Your task to perform on an android device: turn on airplane mode Image 0: 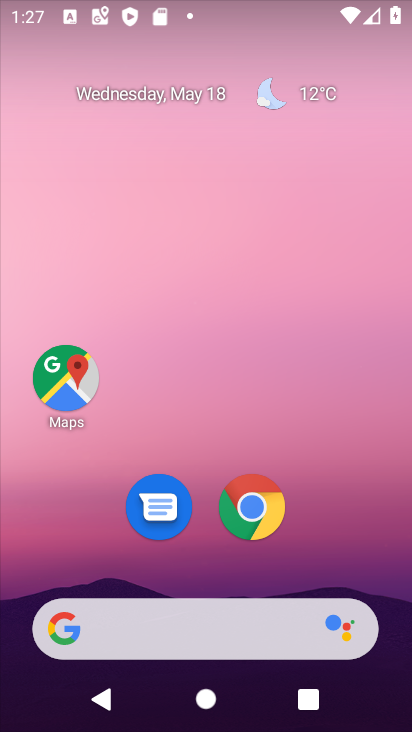
Step 0: drag from (404, 619) to (320, 189)
Your task to perform on an android device: turn on airplane mode Image 1: 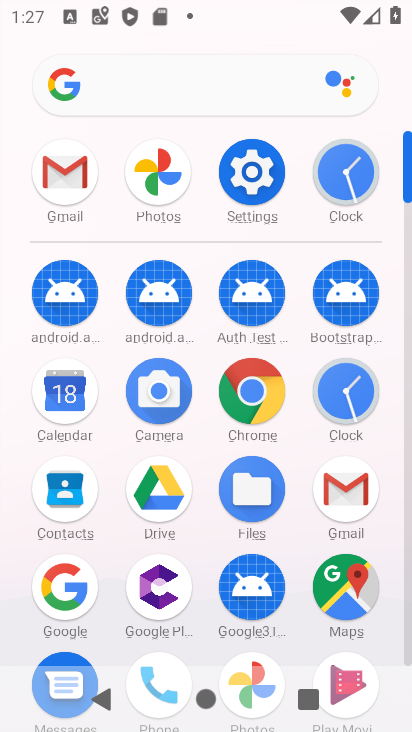
Step 1: click (409, 649)
Your task to perform on an android device: turn on airplane mode Image 2: 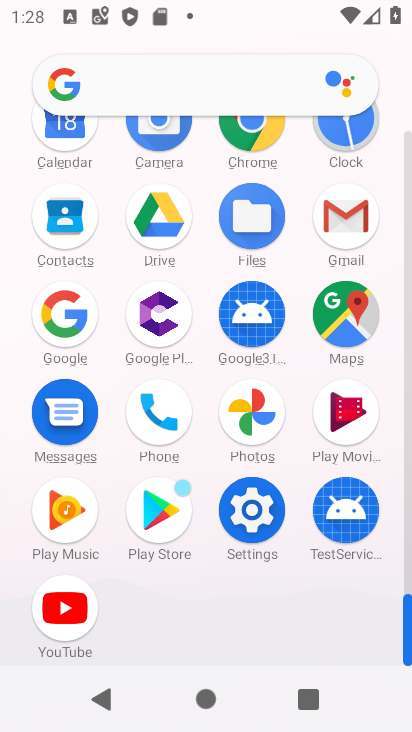
Step 2: click (243, 504)
Your task to perform on an android device: turn on airplane mode Image 3: 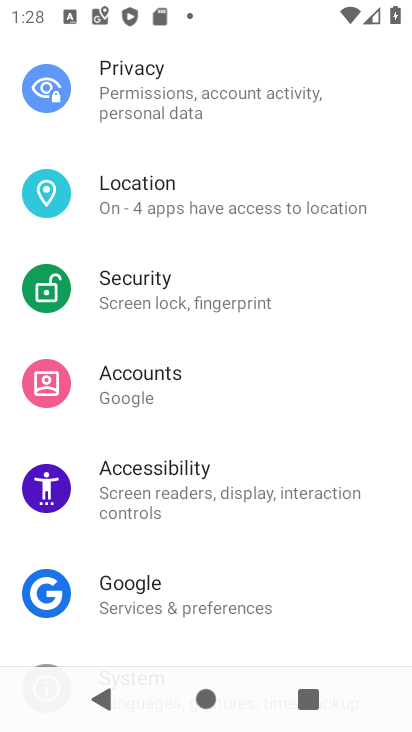
Step 3: drag from (313, 245) to (312, 585)
Your task to perform on an android device: turn on airplane mode Image 4: 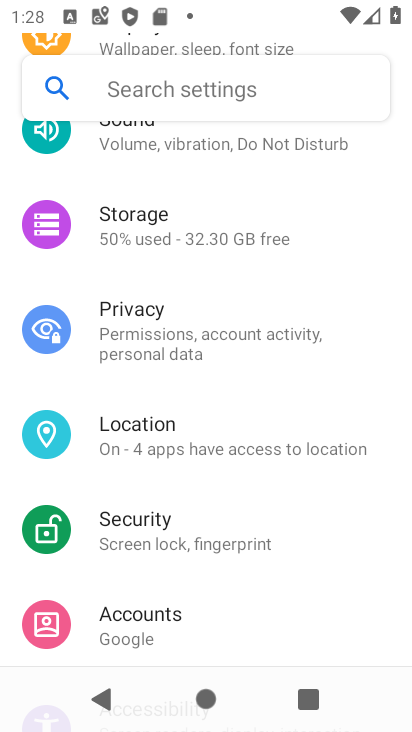
Step 4: drag from (349, 298) to (349, 525)
Your task to perform on an android device: turn on airplane mode Image 5: 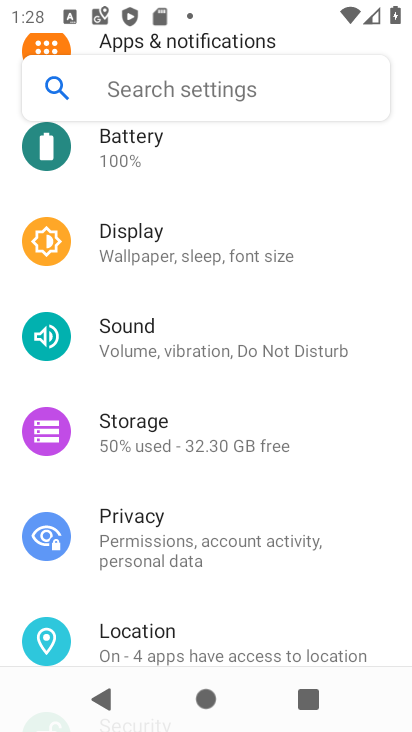
Step 5: drag from (339, 221) to (321, 493)
Your task to perform on an android device: turn on airplane mode Image 6: 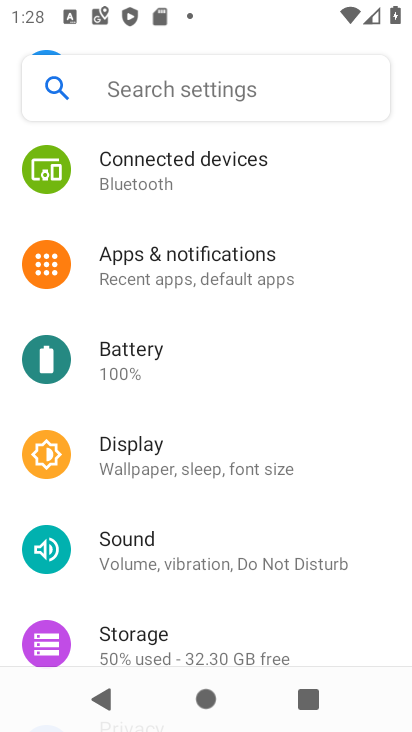
Step 6: drag from (313, 227) to (320, 555)
Your task to perform on an android device: turn on airplane mode Image 7: 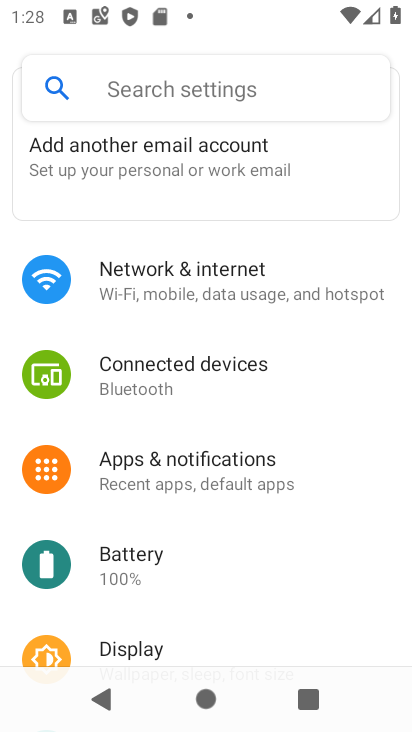
Step 7: click (173, 280)
Your task to perform on an android device: turn on airplane mode Image 8: 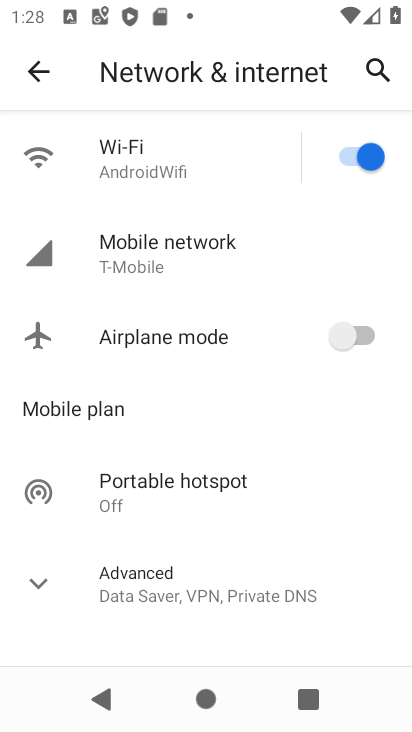
Step 8: click (374, 335)
Your task to perform on an android device: turn on airplane mode Image 9: 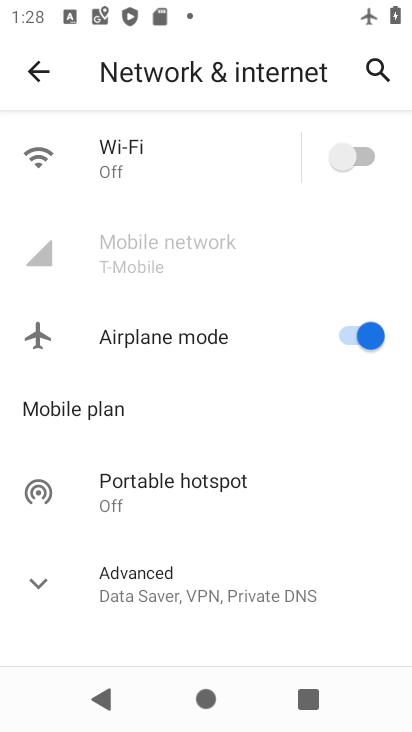
Step 9: task complete